Your task to perform on an android device: open device folders in google photos Image 0: 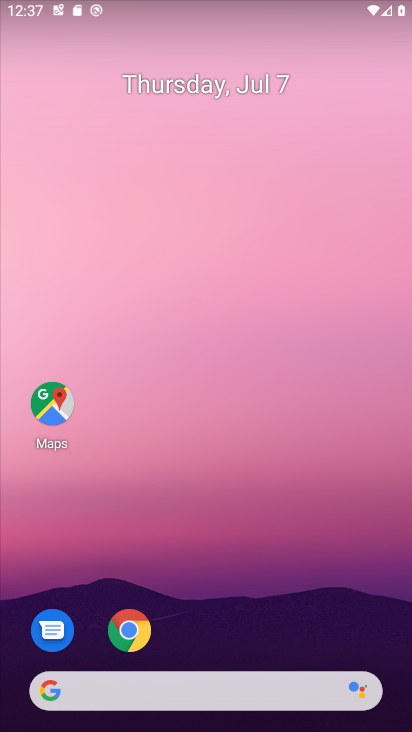
Step 0: drag from (256, 648) to (209, 193)
Your task to perform on an android device: open device folders in google photos Image 1: 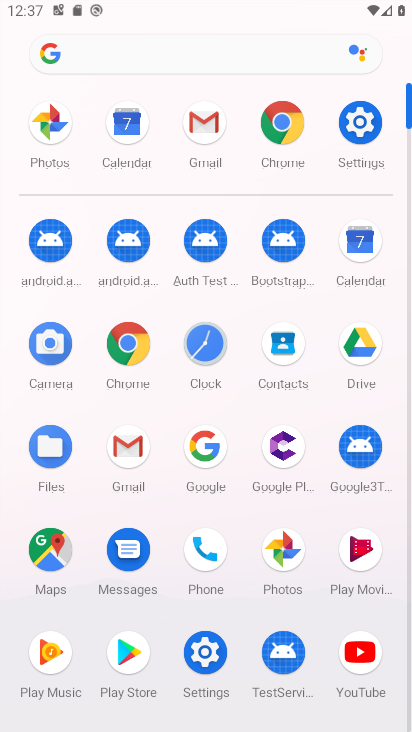
Step 1: click (285, 545)
Your task to perform on an android device: open device folders in google photos Image 2: 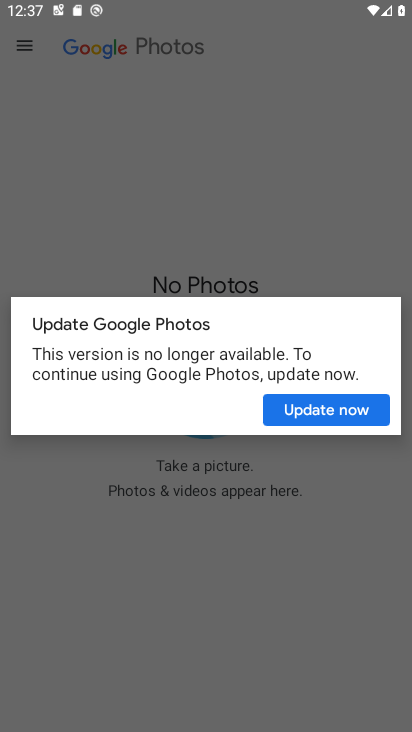
Step 2: click (301, 152)
Your task to perform on an android device: open device folders in google photos Image 3: 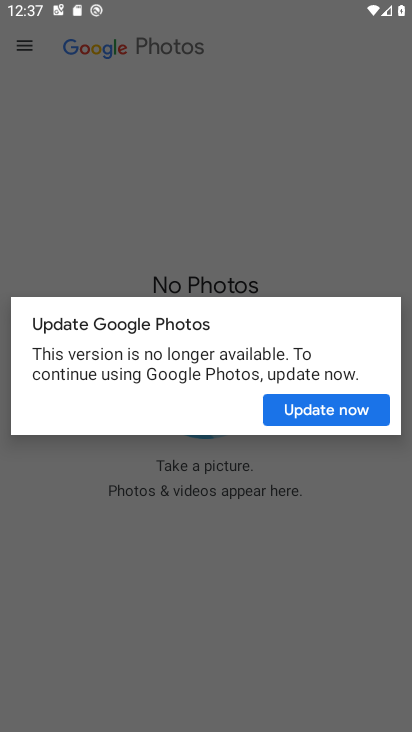
Step 3: click (317, 410)
Your task to perform on an android device: open device folders in google photos Image 4: 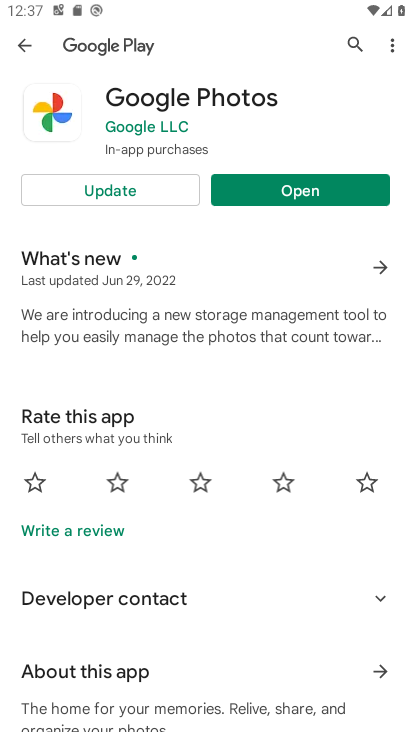
Step 4: task complete